Your task to perform on an android device: Turn off the flashlight Image 0: 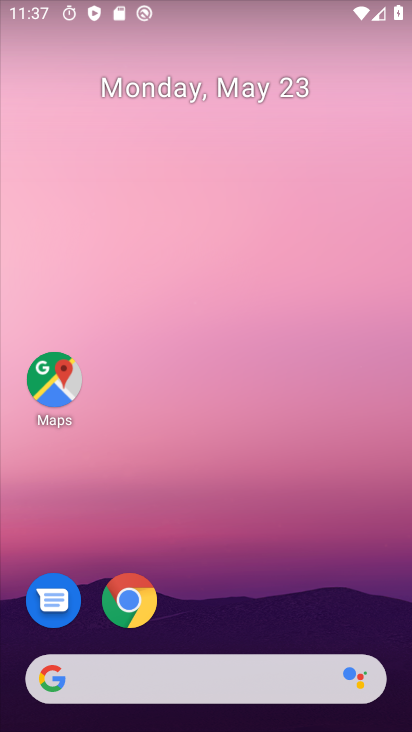
Step 0: drag from (235, 487) to (195, 86)
Your task to perform on an android device: Turn off the flashlight Image 1: 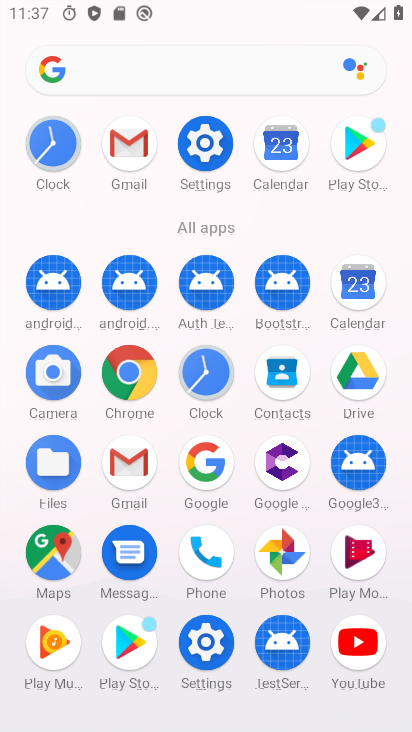
Step 1: click (187, 142)
Your task to perform on an android device: Turn off the flashlight Image 2: 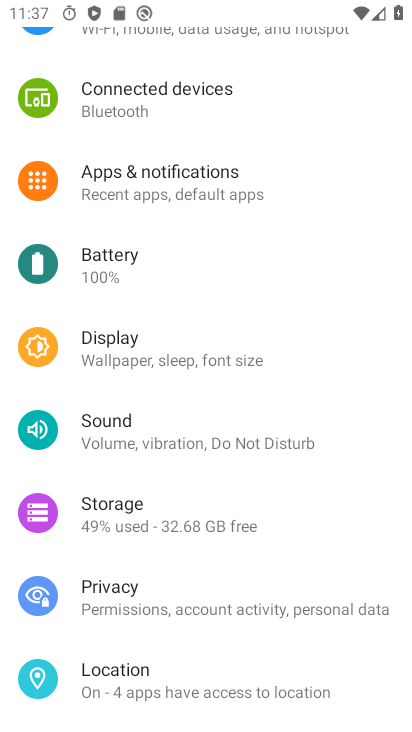
Step 2: drag from (234, 603) to (304, 233)
Your task to perform on an android device: Turn off the flashlight Image 3: 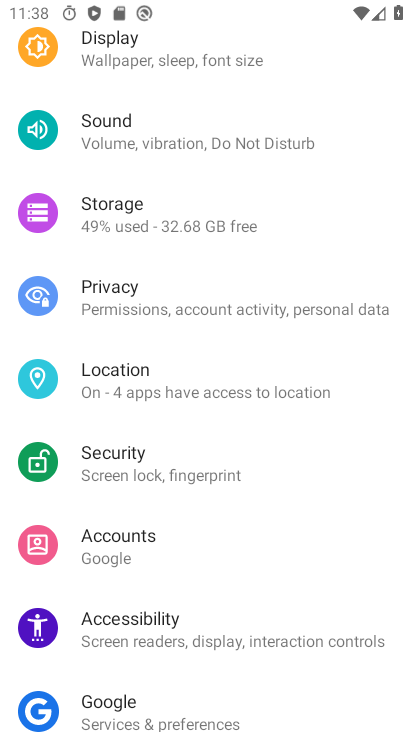
Step 3: drag from (316, 259) to (323, 598)
Your task to perform on an android device: Turn off the flashlight Image 4: 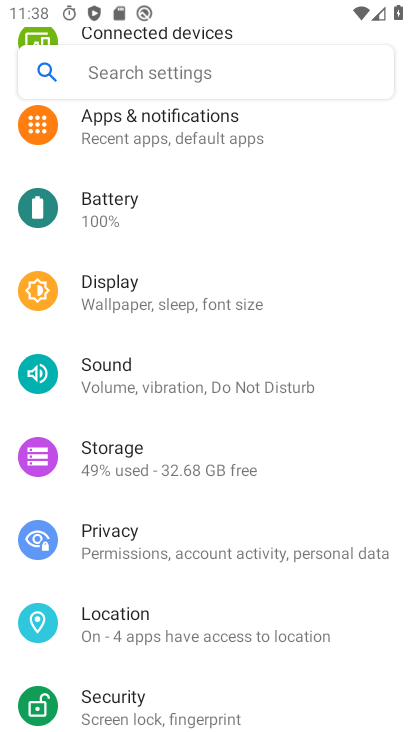
Step 4: click (245, 301)
Your task to perform on an android device: Turn off the flashlight Image 5: 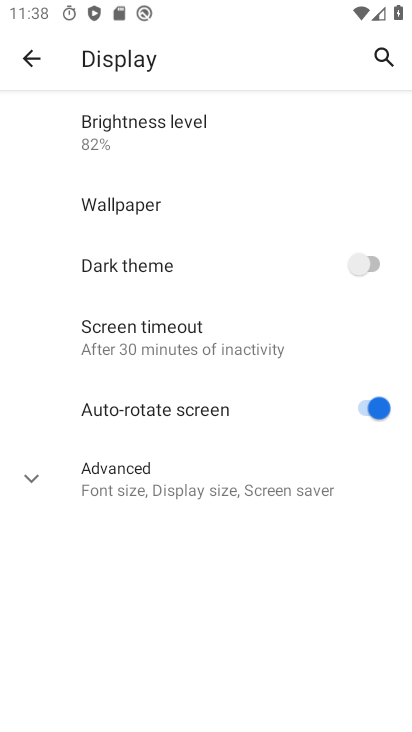
Step 5: task complete